Your task to perform on an android device: open app "Expedia: Hotels, Flights & Car" (install if not already installed) and go to login screen Image 0: 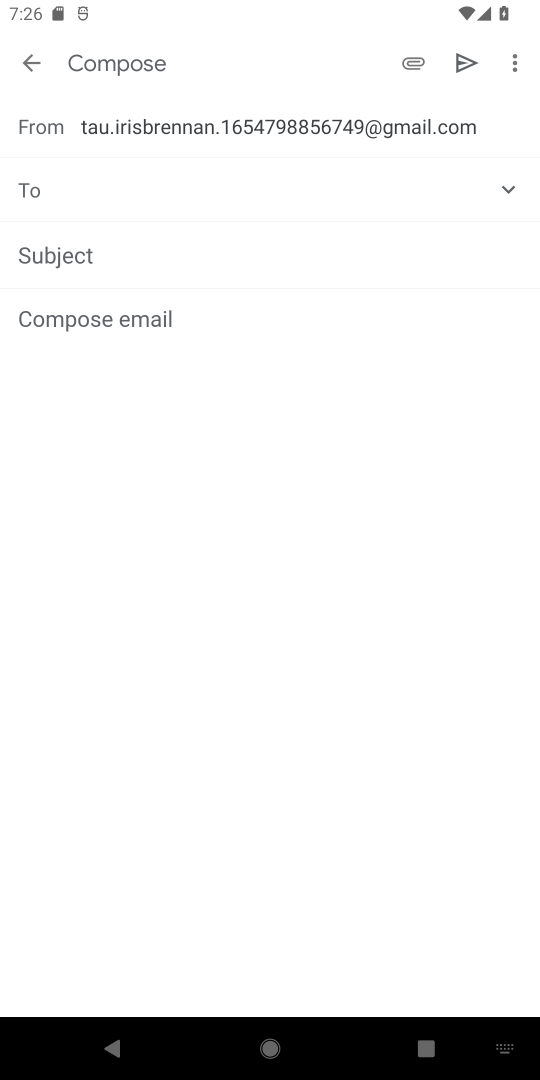
Step 0: press home button
Your task to perform on an android device: open app "Expedia: Hotels, Flights & Car" (install if not already installed) and go to login screen Image 1: 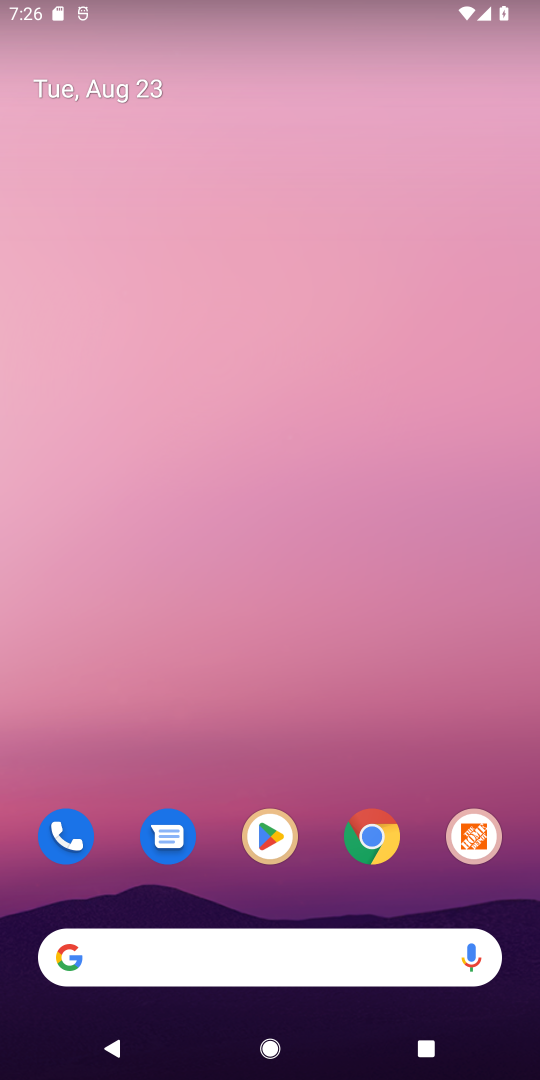
Step 1: click (268, 823)
Your task to perform on an android device: open app "Expedia: Hotels, Flights & Car" (install if not already installed) and go to login screen Image 2: 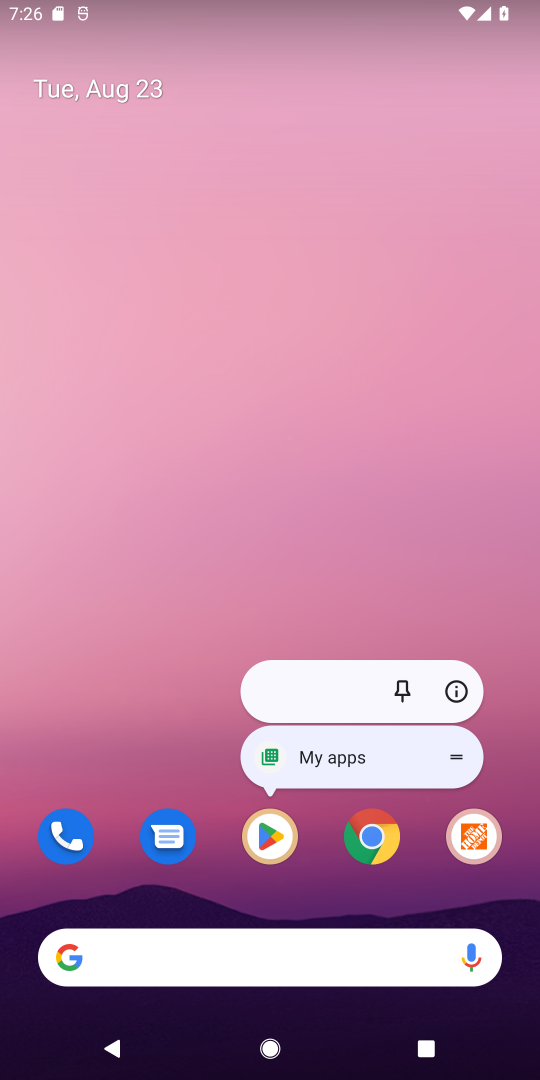
Step 2: click (263, 830)
Your task to perform on an android device: open app "Expedia: Hotels, Flights & Car" (install if not already installed) and go to login screen Image 3: 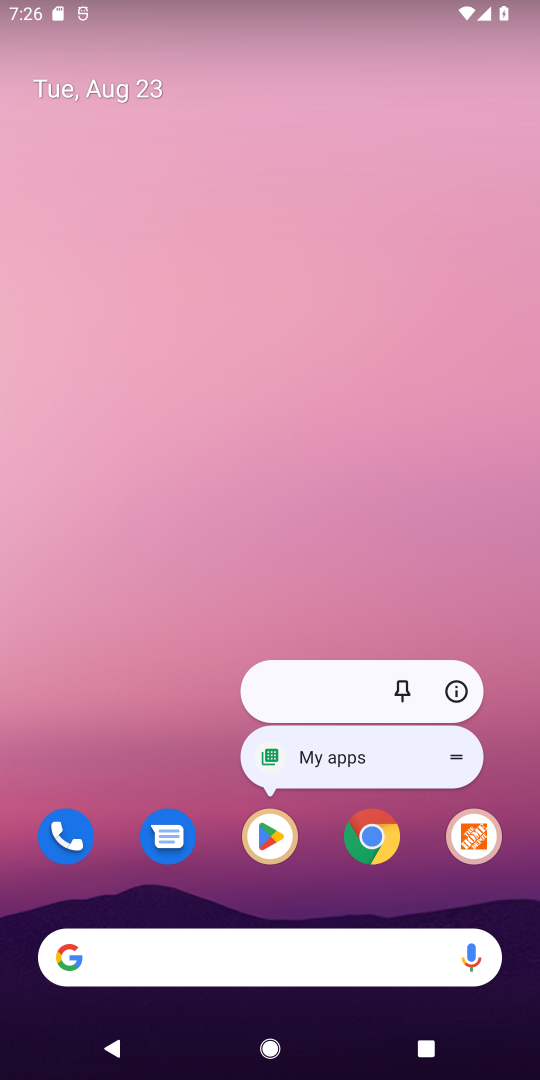
Step 3: click (268, 835)
Your task to perform on an android device: open app "Expedia: Hotels, Flights & Car" (install if not already installed) and go to login screen Image 4: 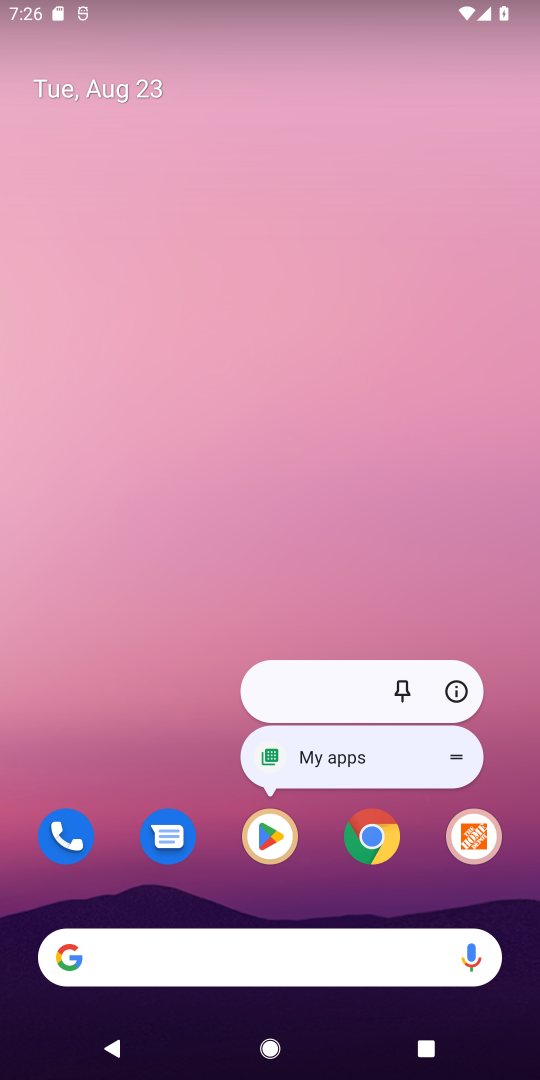
Step 4: click (268, 835)
Your task to perform on an android device: open app "Expedia: Hotels, Flights & Car" (install if not already installed) and go to login screen Image 5: 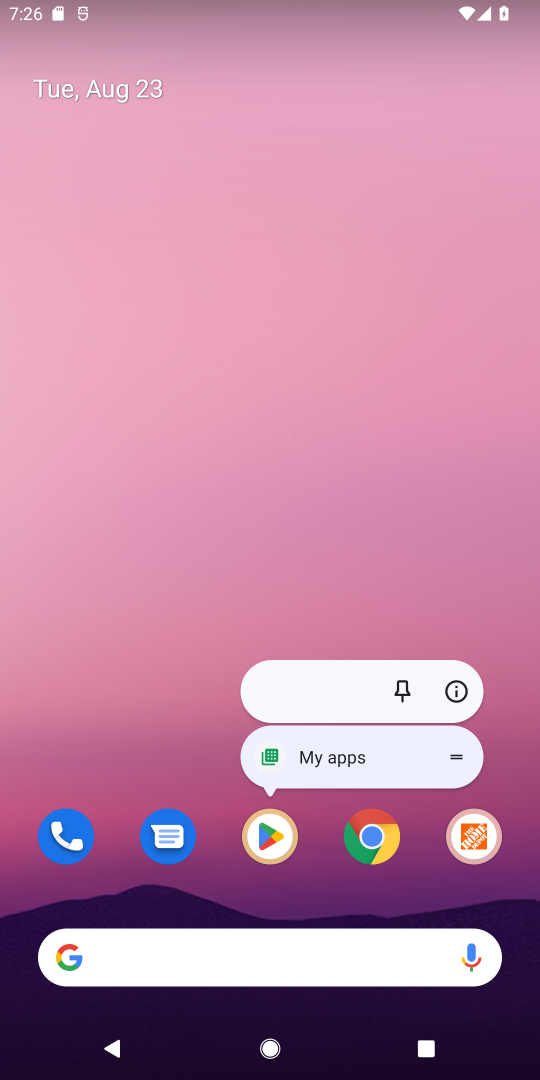
Step 5: click (272, 844)
Your task to perform on an android device: open app "Expedia: Hotels, Flights & Car" (install if not already installed) and go to login screen Image 6: 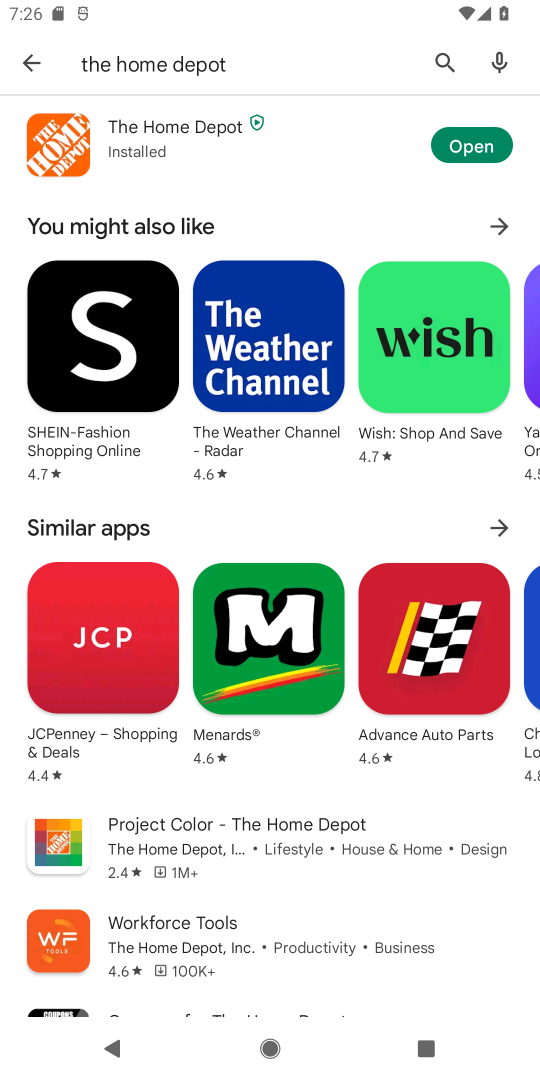
Step 6: click (440, 59)
Your task to perform on an android device: open app "Expedia: Hotels, Flights & Car" (install if not already installed) and go to login screen Image 7: 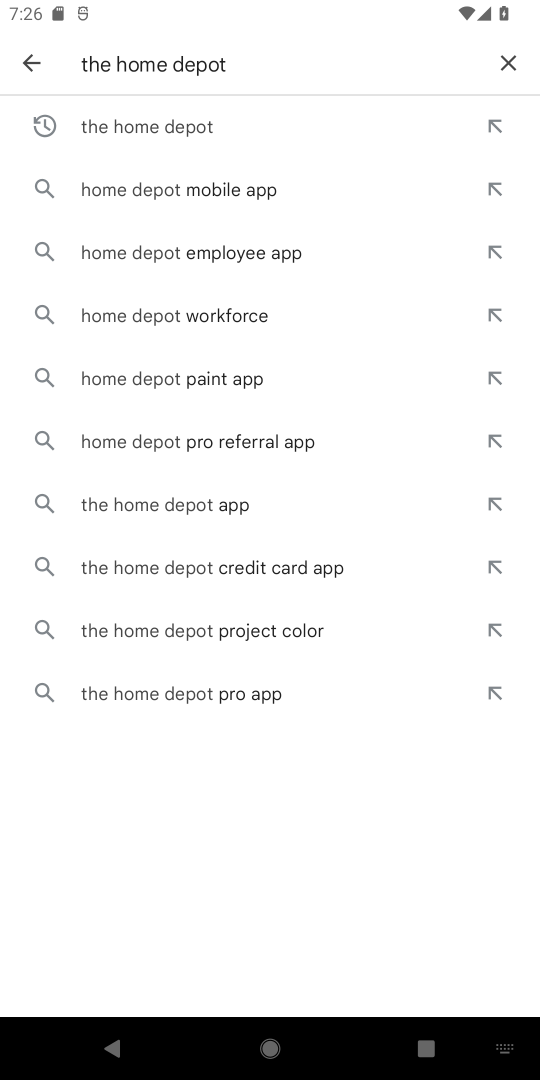
Step 7: click (508, 60)
Your task to perform on an android device: open app "Expedia: Hotels, Flights & Car" (install if not already installed) and go to login screen Image 8: 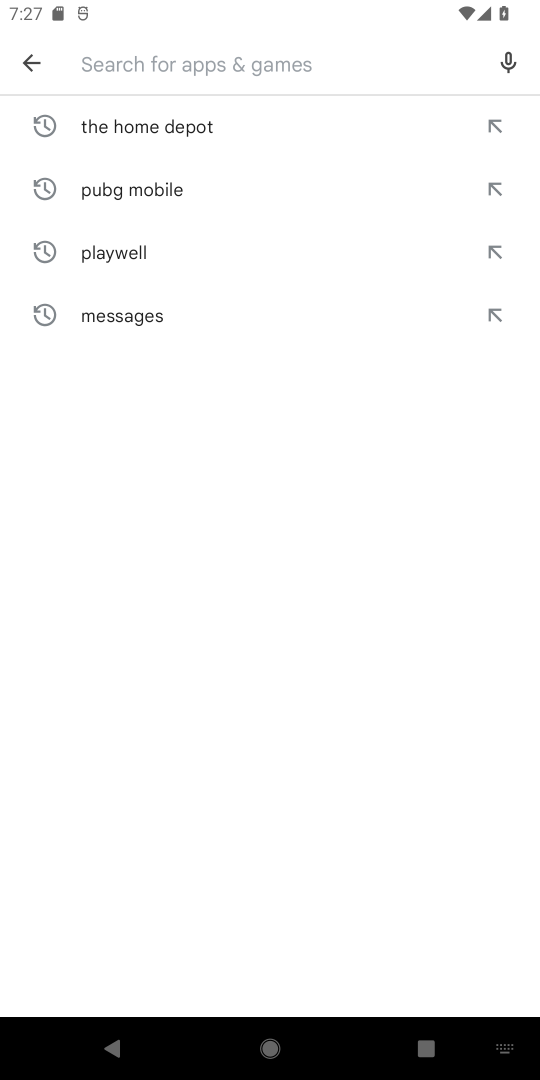
Step 8: type "Expedia: Hotels, Flights & Car"
Your task to perform on an android device: open app "Expedia: Hotels, Flights & Car" (install if not already installed) and go to login screen Image 9: 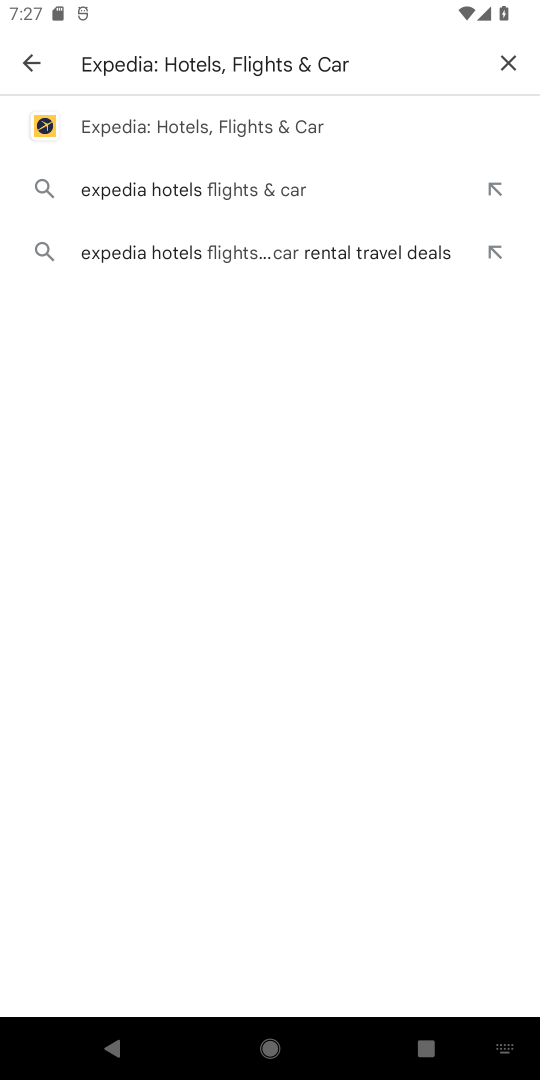
Step 9: click (247, 130)
Your task to perform on an android device: open app "Expedia: Hotels, Flights & Car" (install if not already installed) and go to login screen Image 10: 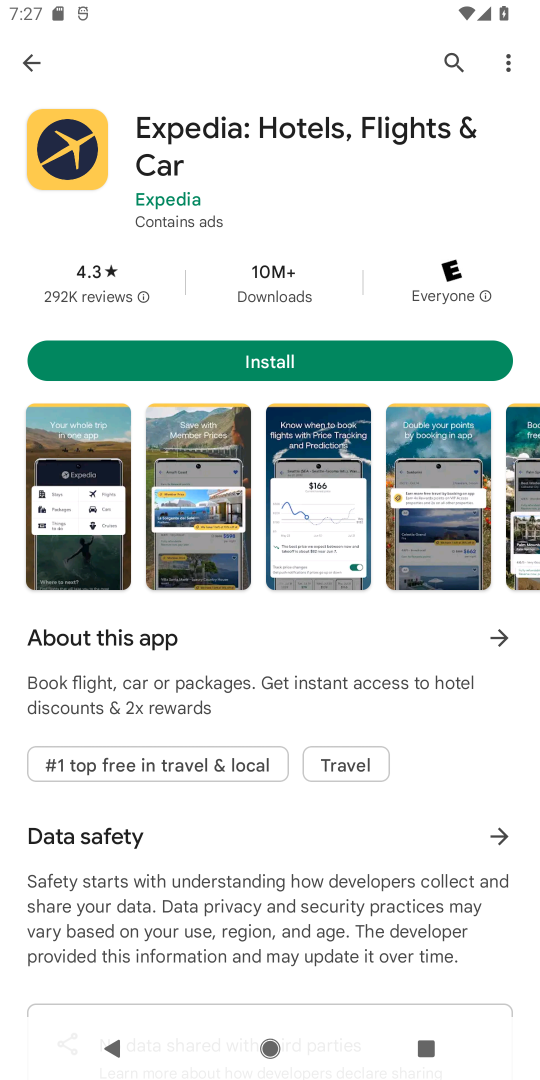
Step 10: click (285, 364)
Your task to perform on an android device: open app "Expedia: Hotels, Flights & Car" (install if not already installed) and go to login screen Image 11: 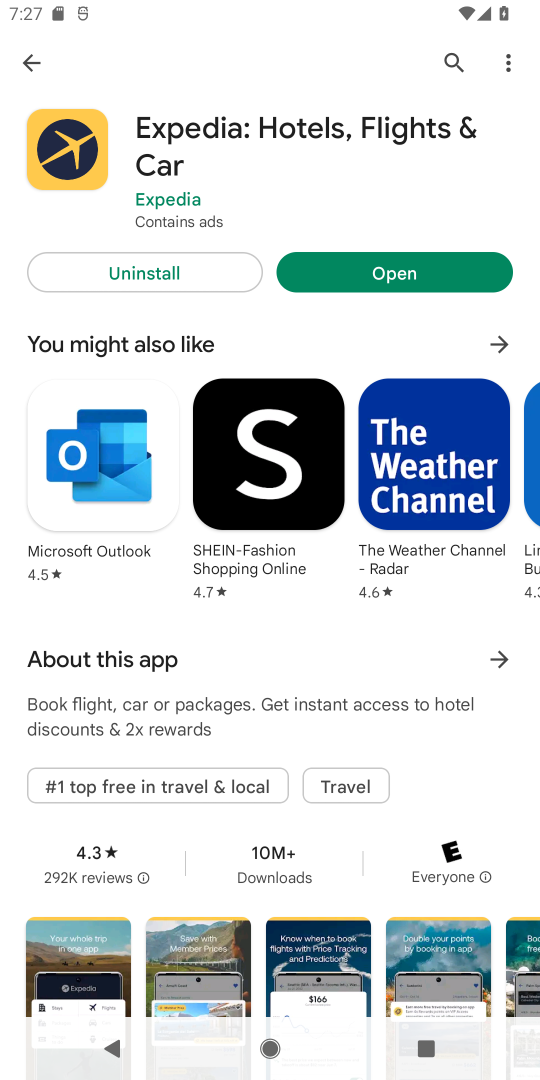
Step 11: click (386, 277)
Your task to perform on an android device: open app "Expedia: Hotels, Flights & Car" (install if not already installed) and go to login screen Image 12: 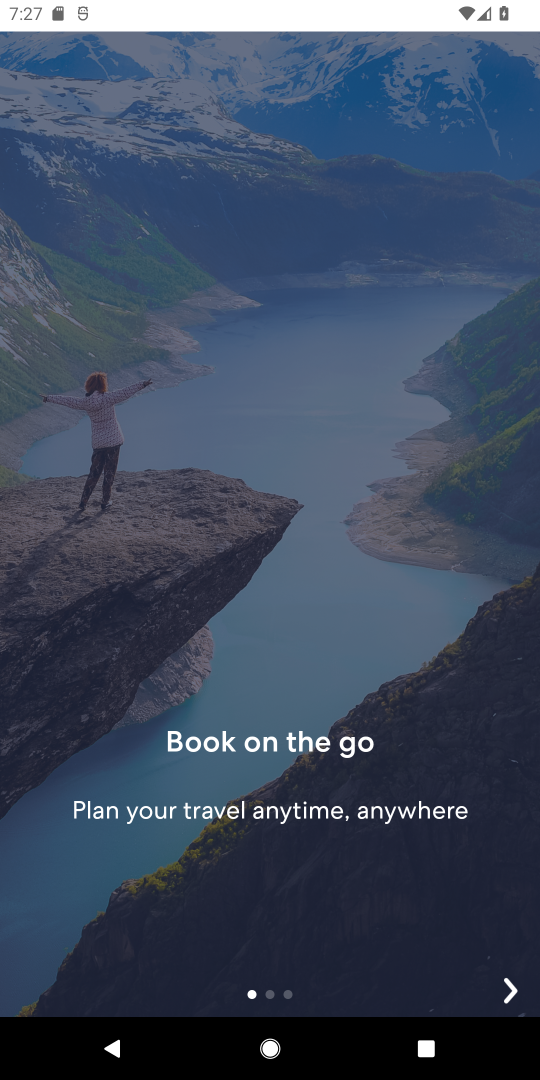
Step 12: click (512, 994)
Your task to perform on an android device: open app "Expedia: Hotels, Flights & Car" (install if not already installed) and go to login screen Image 13: 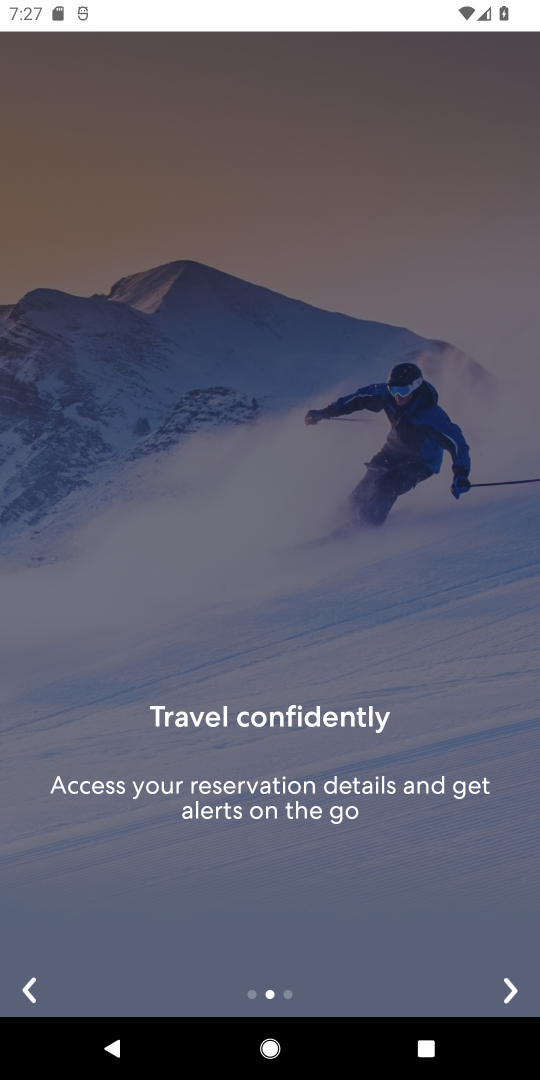
Step 13: click (512, 994)
Your task to perform on an android device: open app "Expedia: Hotels, Flights & Car" (install if not already installed) and go to login screen Image 14: 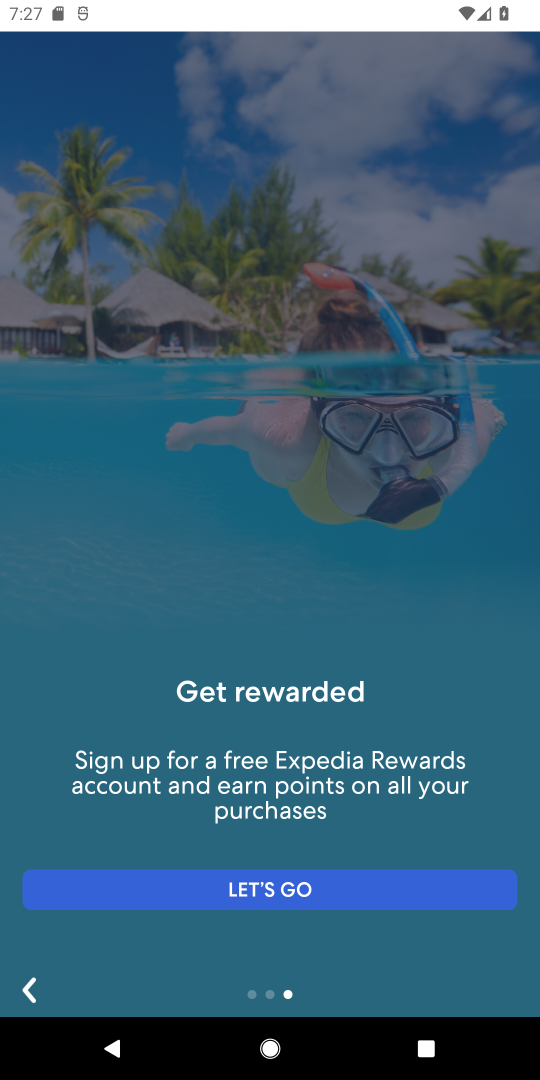
Step 14: click (295, 892)
Your task to perform on an android device: open app "Expedia: Hotels, Flights & Car" (install if not already installed) and go to login screen Image 15: 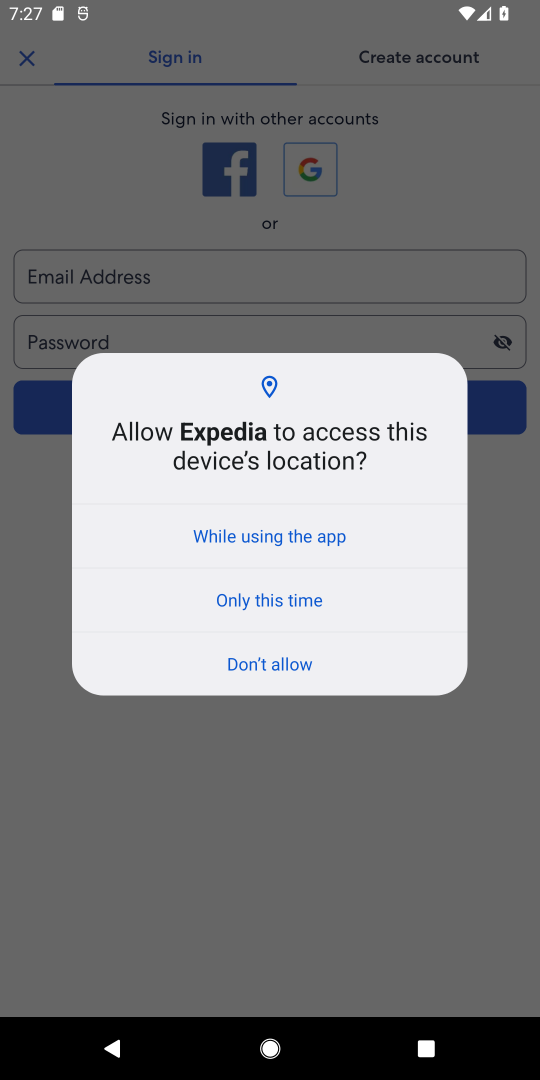
Step 15: click (257, 603)
Your task to perform on an android device: open app "Expedia: Hotels, Flights & Car" (install if not already installed) and go to login screen Image 16: 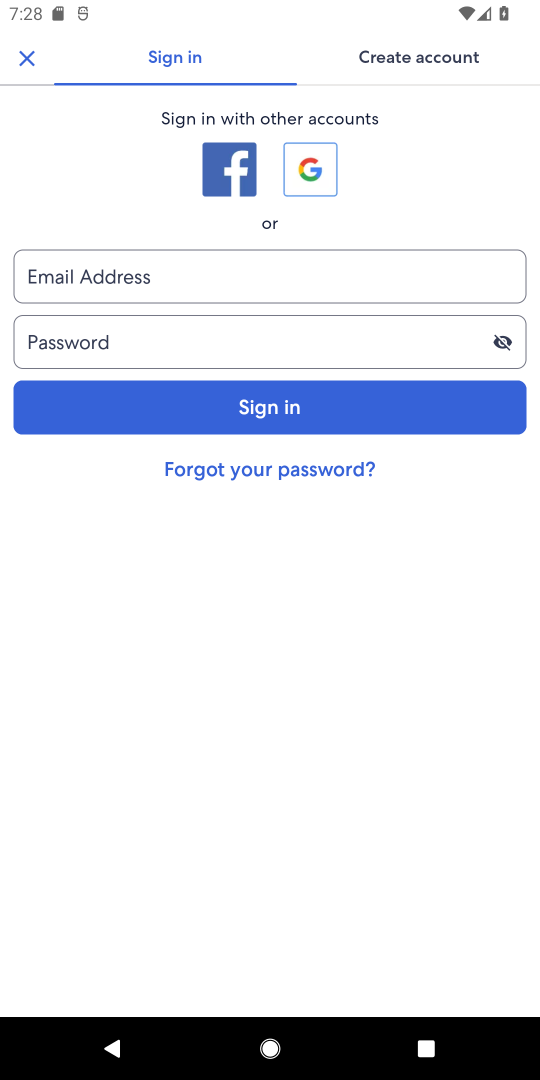
Step 16: task complete